Your task to perform on an android device: Go to accessibility settings Image 0: 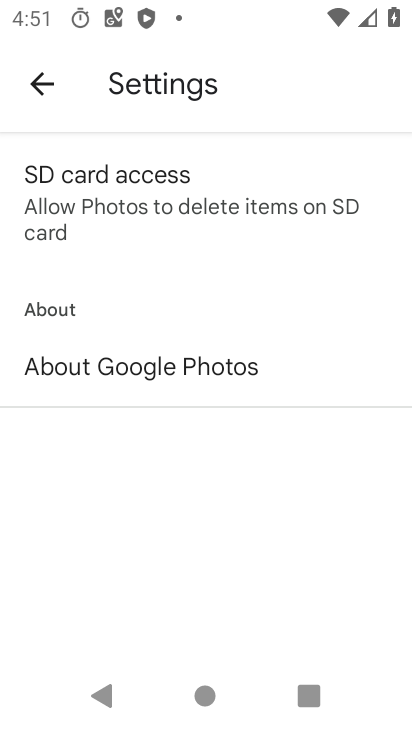
Step 0: press home button
Your task to perform on an android device: Go to accessibility settings Image 1: 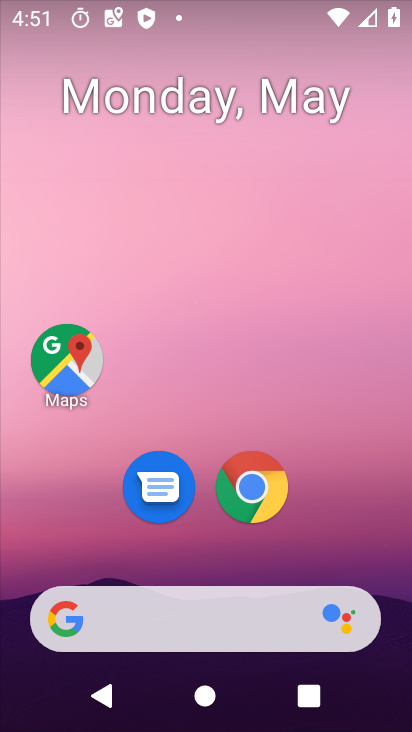
Step 1: drag from (210, 582) to (178, 174)
Your task to perform on an android device: Go to accessibility settings Image 2: 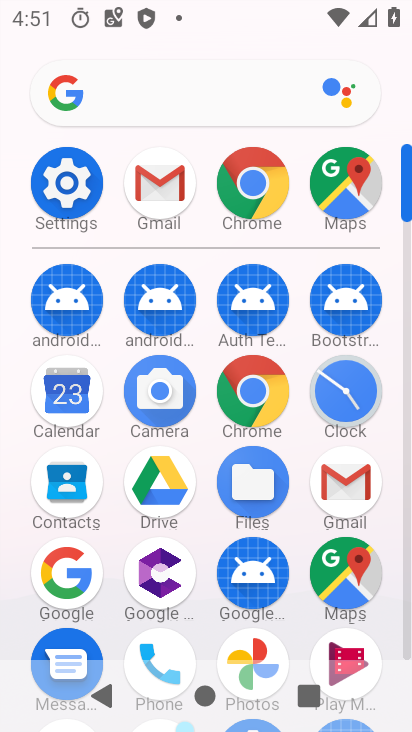
Step 2: click (64, 175)
Your task to perform on an android device: Go to accessibility settings Image 3: 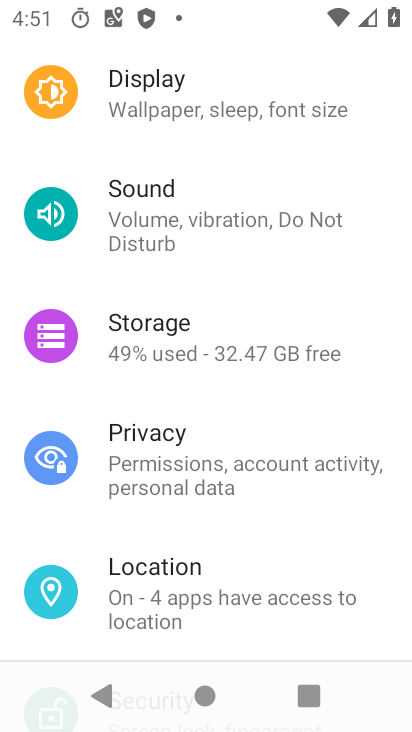
Step 3: drag from (204, 631) to (196, 182)
Your task to perform on an android device: Go to accessibility settings Image 4: 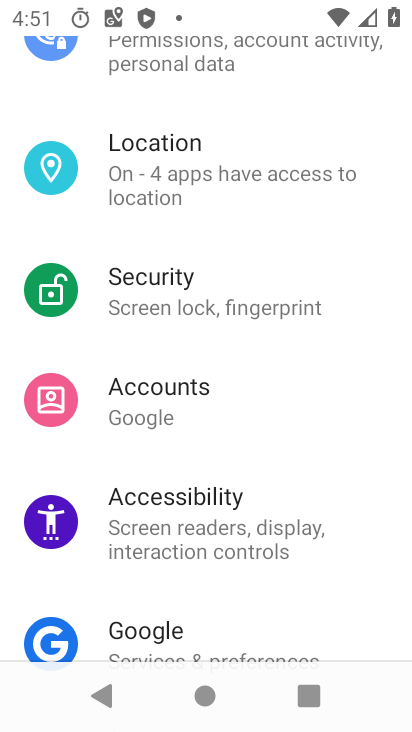
Step 4: click (219, 511)
Your task to perform on an android device: Go to accessibility settings Image 5: 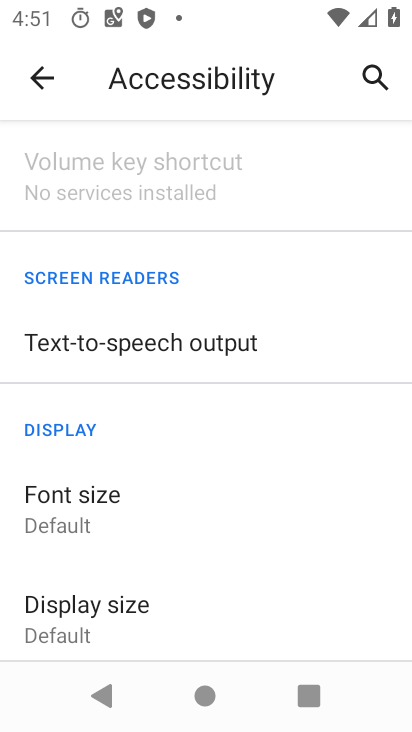
Step 5: task complete